Your task to perform on an android device: delete location history Image 0: 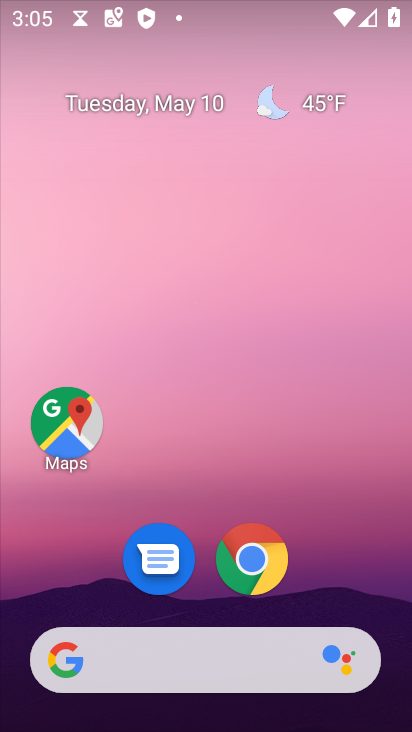
Step 0: drag from (351, 610) to (205, 229)
Your task to perform on an android device: delete location history Image 1: 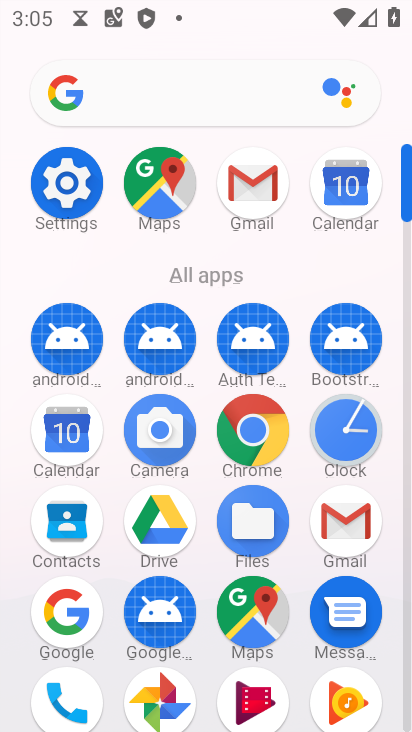
Step 1: drag from (299, 531) to (298, 180)
Your task to perform on an android device: delete location history Image 2: 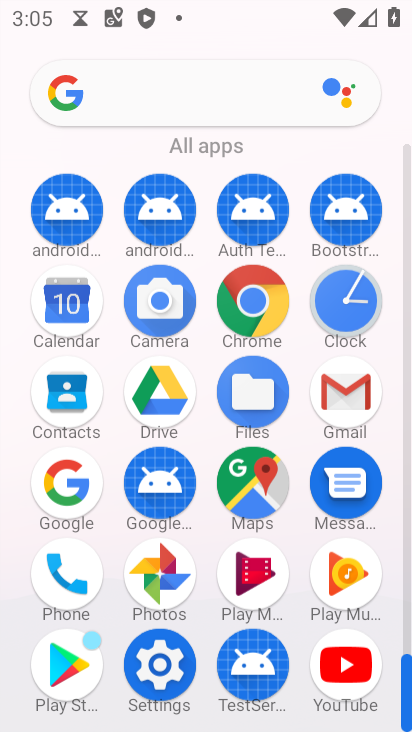
Step 2: drag from (297, 424) to (261, 138)
Your task to perform on an android device: delete location history Image 3: 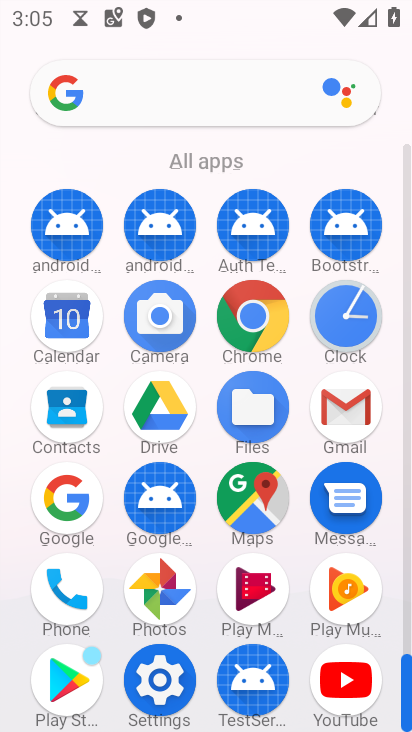
Step 3: click (247, 503)
Your task to perform on an android device: delete location history Image 4: 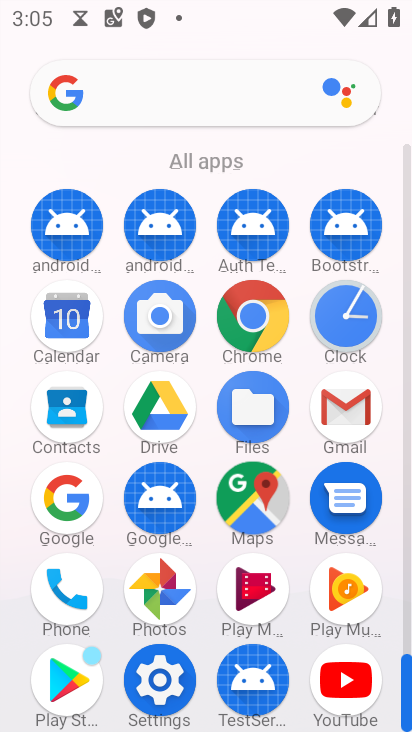
Step 4: click (247, 503)
Your task to perform on an android device: delete location history Image 5: 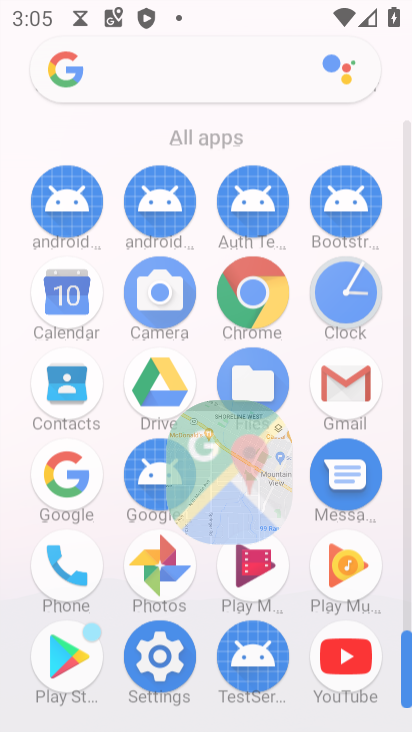
Step 5: click (247, 503)
Your task to perform on an android device: delete location history Image 6: 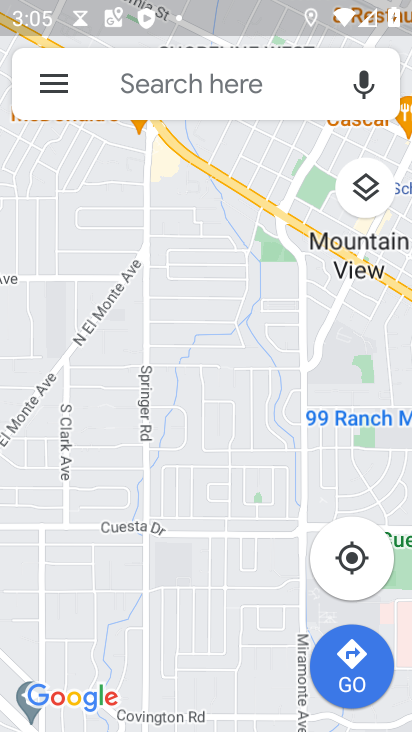
Step 6: drag from (60, 81) to (58, 273)
Your task to perform on an android device: delete location history Image 7: 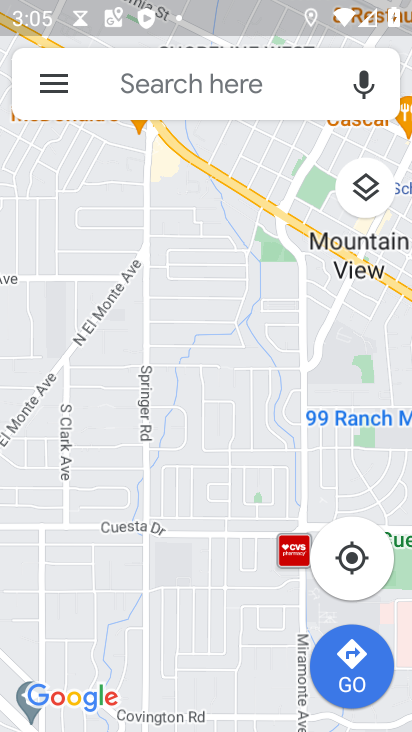
Step 7: click (48, 84)
Your task to perform on an android device: delete location history Image 8: 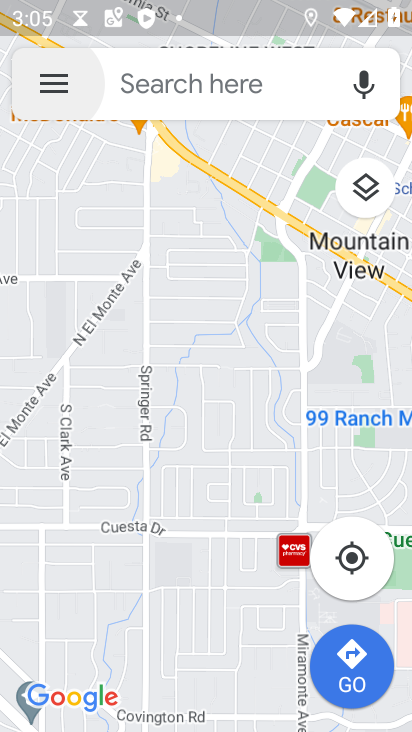
Step 8: click (52, 81)
Your task to perform on an android device: delete location history Image 9: 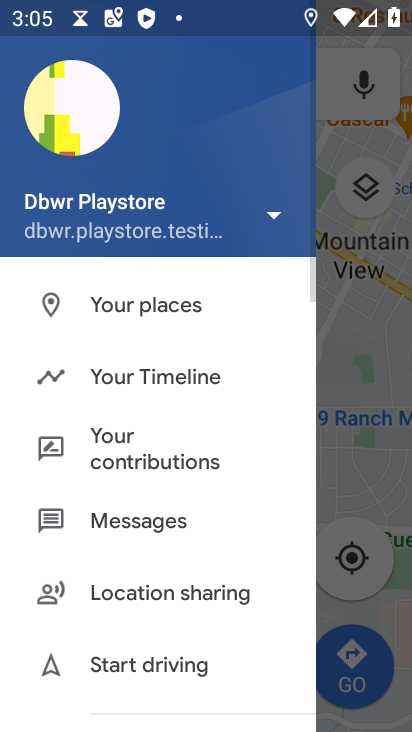
Step 9: click (184, 379)
Your task to perform on an android device: delete location history Image 10: 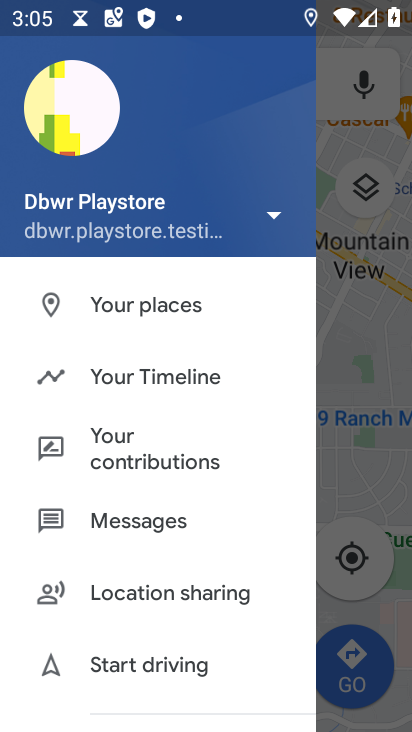
Step 10: click (167, 373)
Your task to perform on an android device: delete location history Image 11: 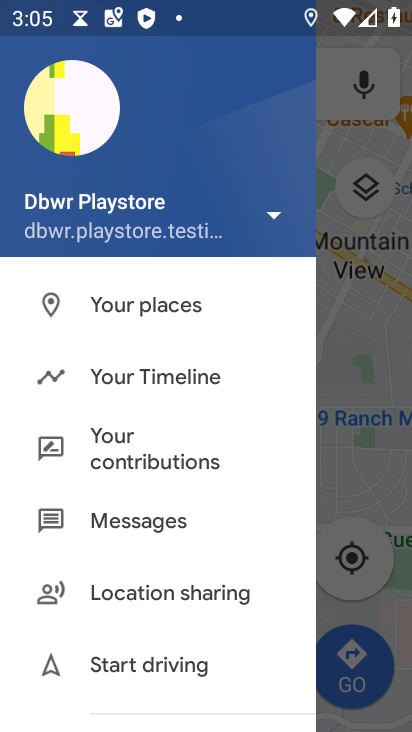
Step 11: click (168, 371)
Your task to perform on an android device: delete location history Image 12: 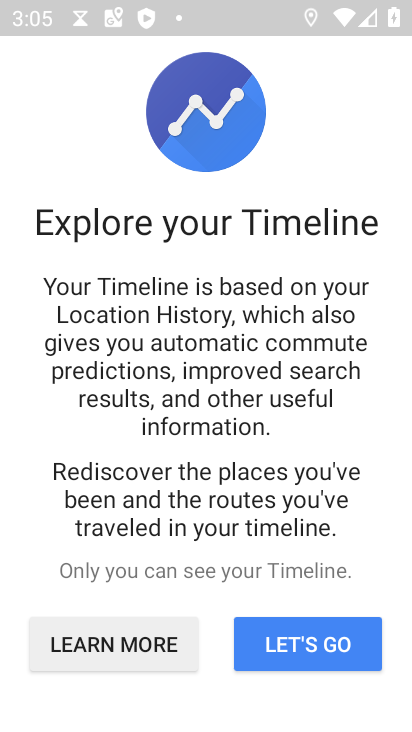
Step 12: click (310, 638)
Your task to perform on an android device: delete location history Image 13: 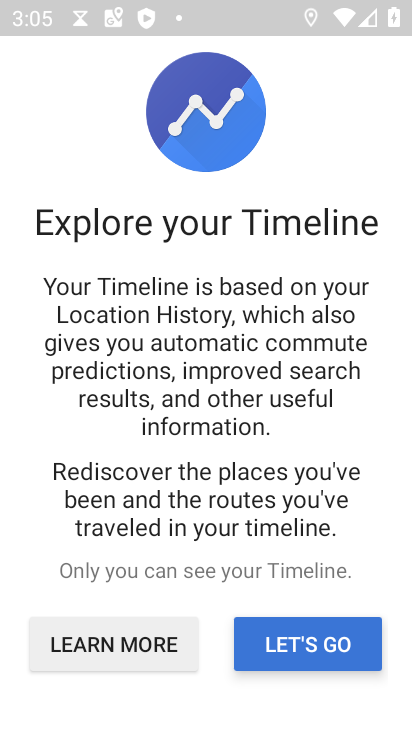
Step 13: click (310, 641)
Your task to perform on an android device: delete location history Image 14: 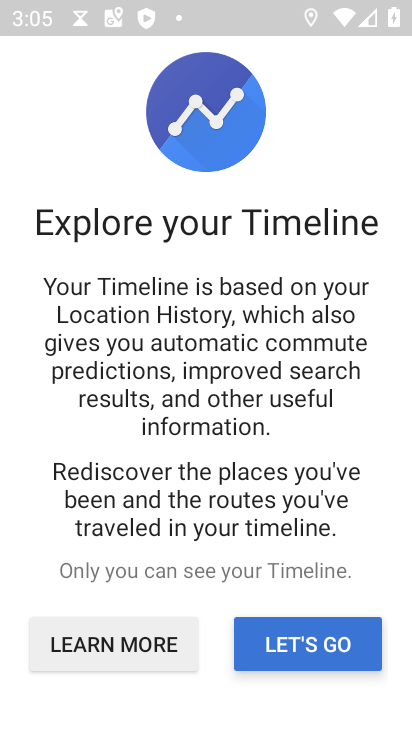
Step 14: click (307, 651)
Your task to perform on an android device: delete location history Image 15: 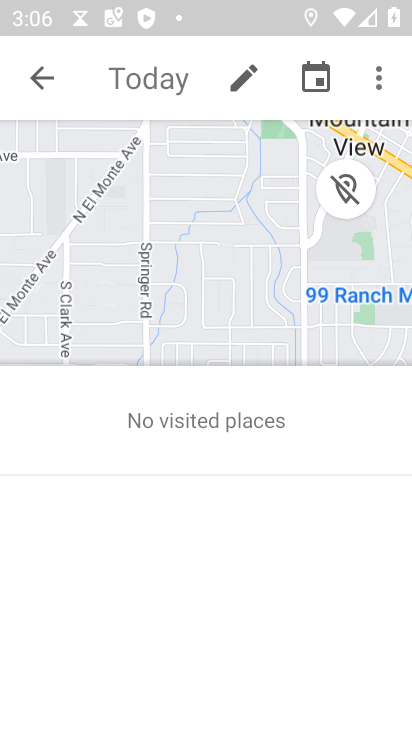
Step 15: click (372, 72)
Your task to perform on an android device: delete location history Image 16: 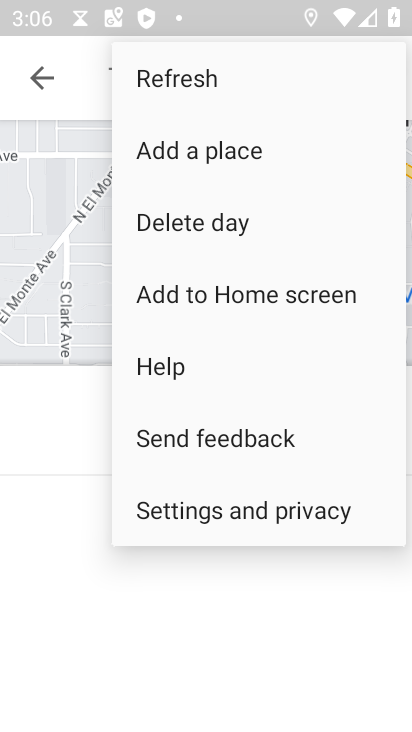
Step 16: click (243, 520)
Your task to perform on an android device: delete location history Image 17: 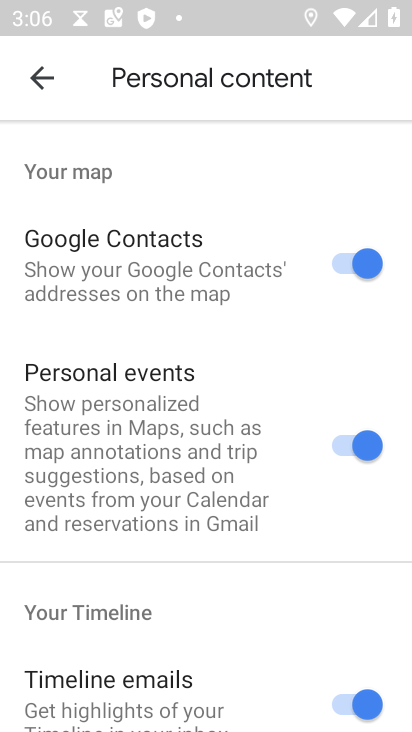
Step 17: drag from (217, 391) to (161, 128)
Your task to perform on an android device: delete location history Image 18: 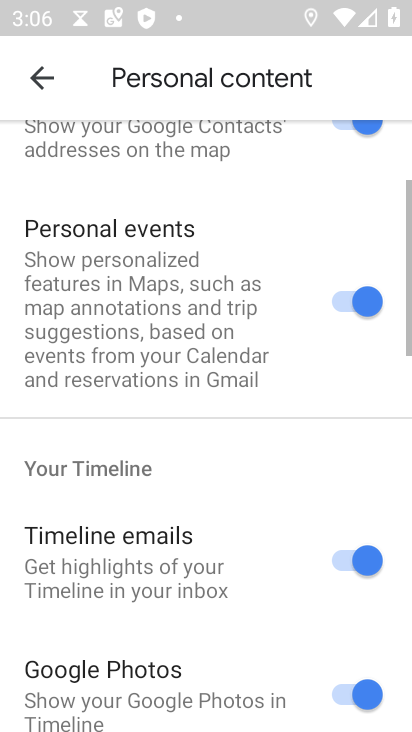
Step 18: drag from (266, 418) to (209, 94)
Your task to perform on an android device: delete location history Image 19: 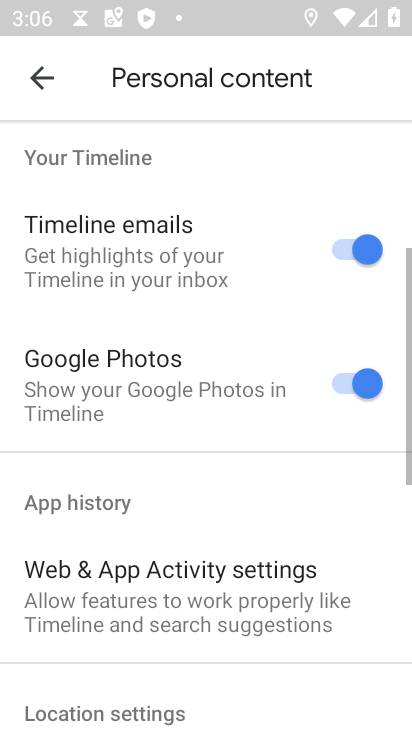
Step 19: drag from (205, 358) to (203, 64)
Your task to perform on an android device: delete location history Image 20: 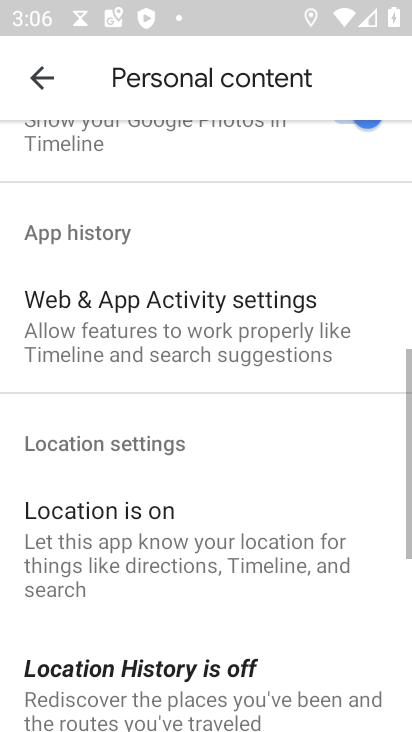
Step 20: drag from (185, 244) to (166, 90)
Your task to perform on an android device: delete location history Image 21: 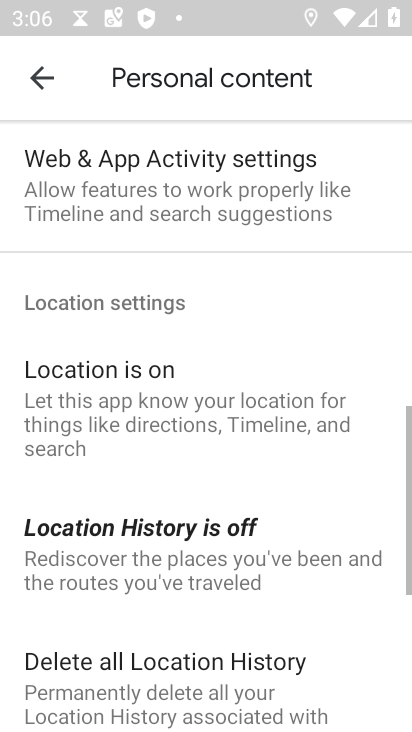
Step 21: drag from (148, 521) to (125, 228)
Your task to perform on an android device: delete location history Image 22: 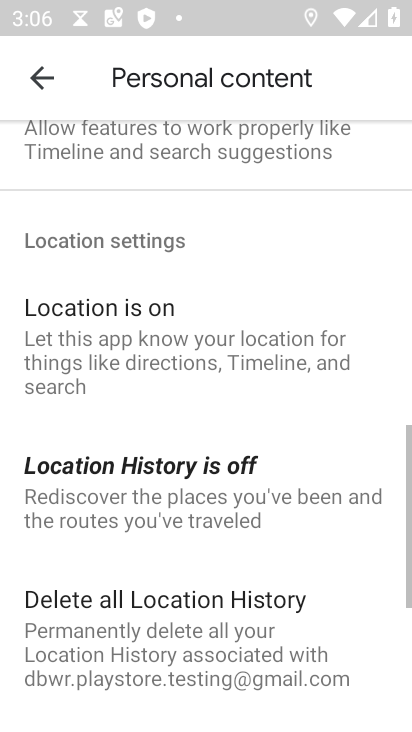
Step 22: drag from (227, 287) to (233, 2)
Your task to perform on an android device: delete location history Image 23: 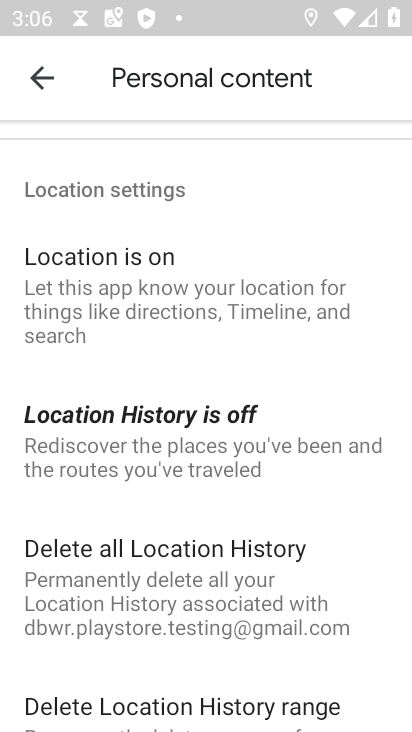
Step 23: click (134, 425)
Your task to perform on an android device: delete location history Image 24: 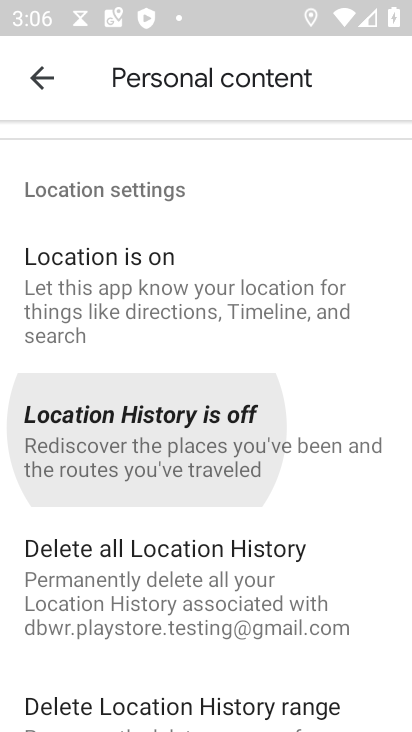
Step 24: click (133, 430)
Your task to perform on an android device: delete location history Image 25: 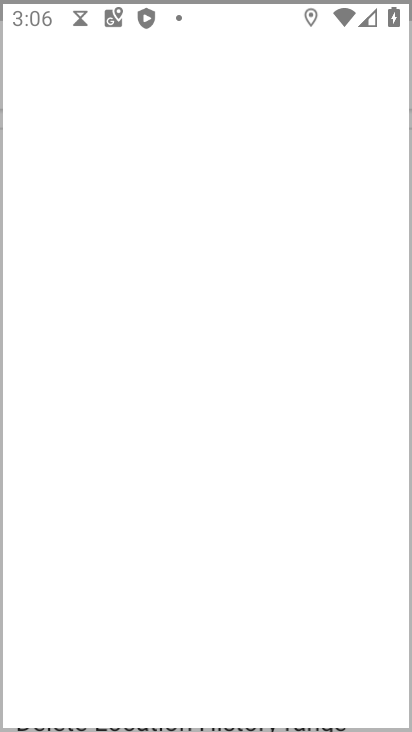
Step 25: click (133, 430)
Your task to perform on an android device: delete location history Image 26: 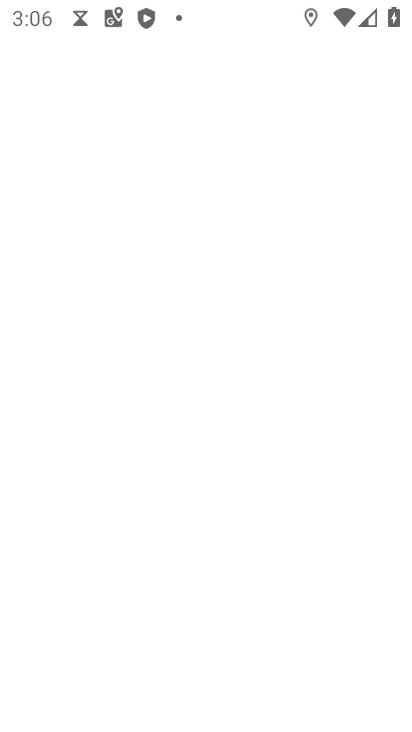
Step 26: click (134, 430)
Your task to perform on an android device: delete location history Image 27: 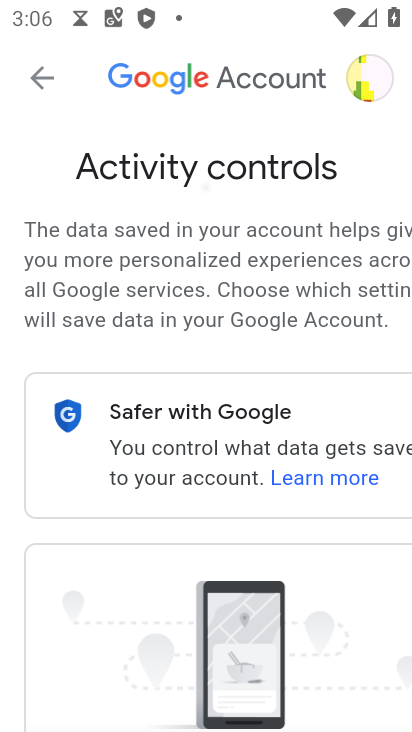
Step 27: click (241, 179)
Your task to perform on an android device: delete location history Image 28: 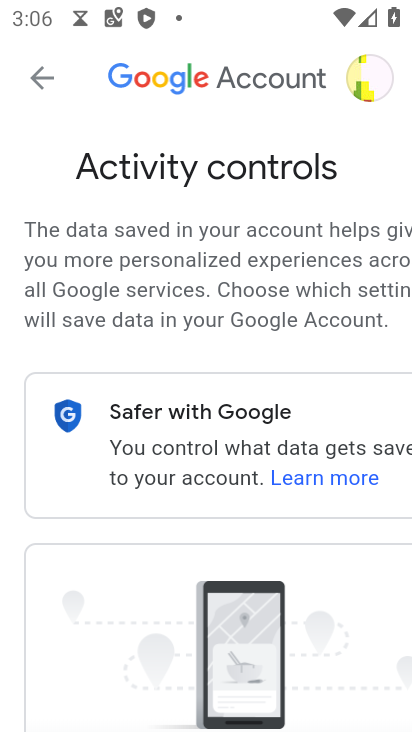
Step 28: drag from (208, 466) to (117, 102)
Your task to perform on an android device: delete location history Image 29: 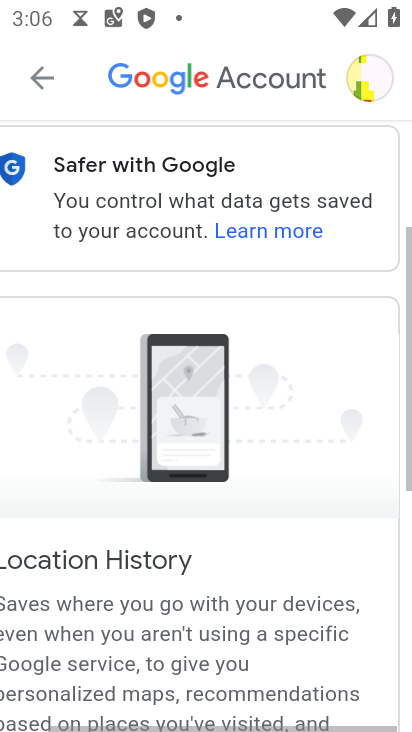
Step 29: drag from (274, 522) to (175, 158)
Your task to perform on an android device: delete location history Image 30: 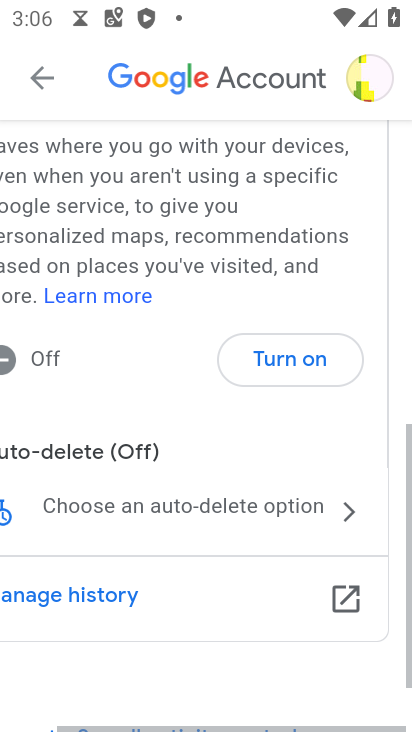
Step 30: drag from (222, 447) to (162, 1)
Your task to perform on an android device: delete location history Image 31: 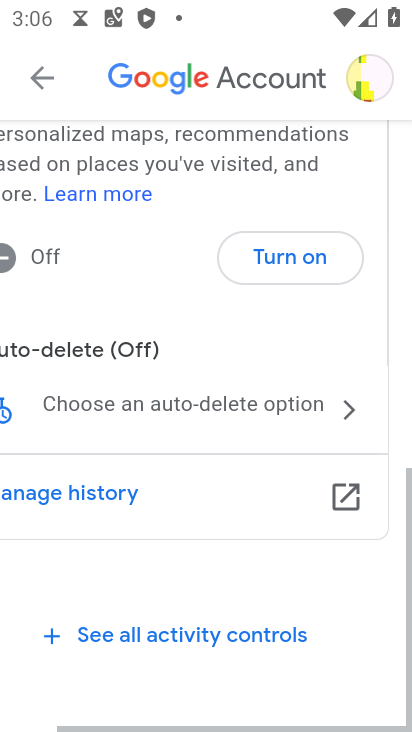
Step 31: drag from (176, 467) to (127, 117)
Your task to perform on an android device: delete location history Image 32: 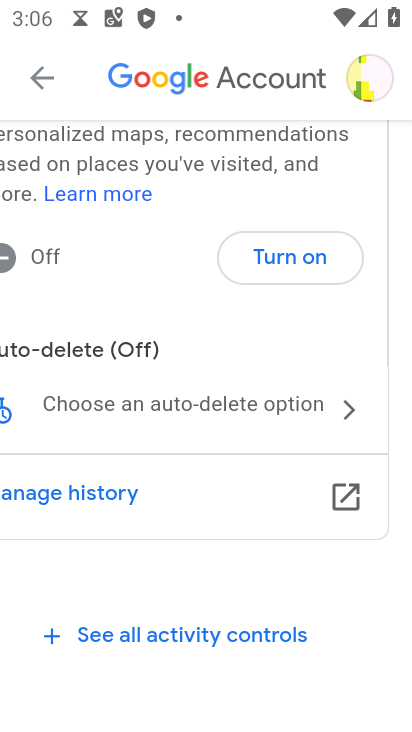
Step 32: drag from (182, 506) to (0, 217)
Your task to perform on an android device: delete location history Image 33: 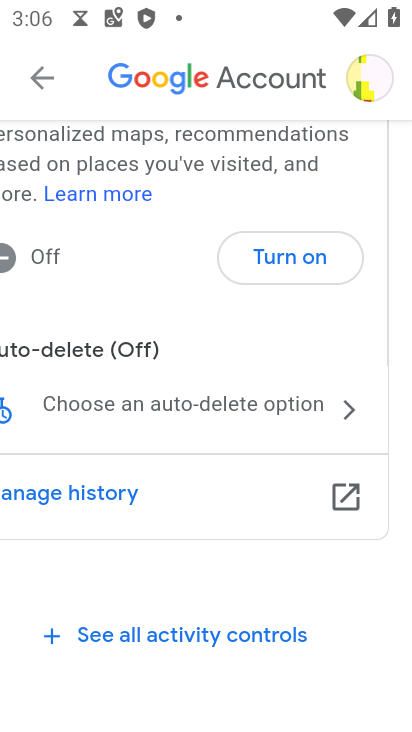
Step 33: click (74, 348)
Your task to perform on an android device: delete location history Image 34: 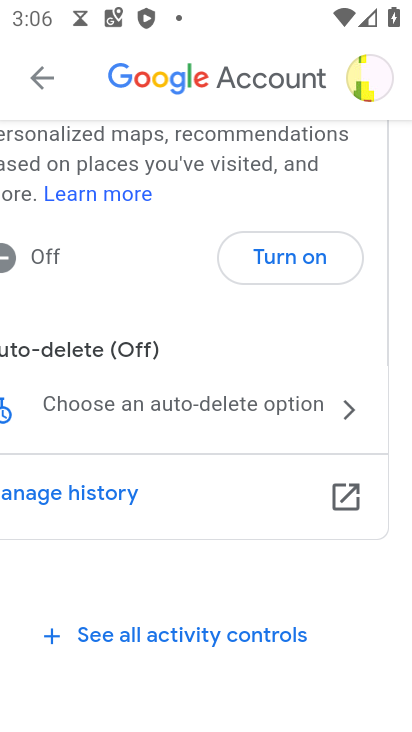
Step 34: click (74, 348)
Your task to perform on an android device: delete location history Image 35: 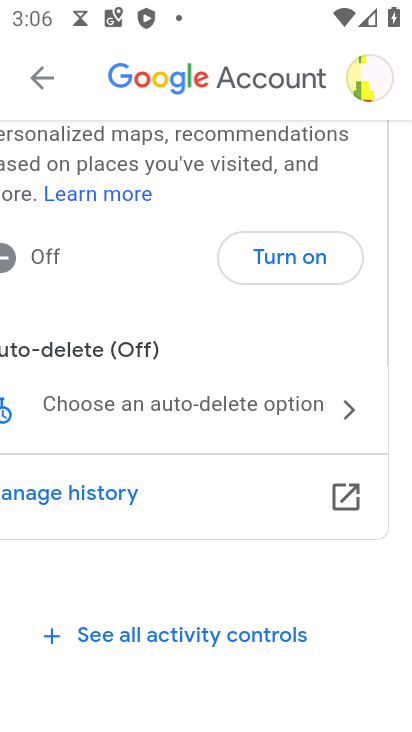
Step 35: click (58, 338)
Your task to perform on an android device: delete location history Image 36: 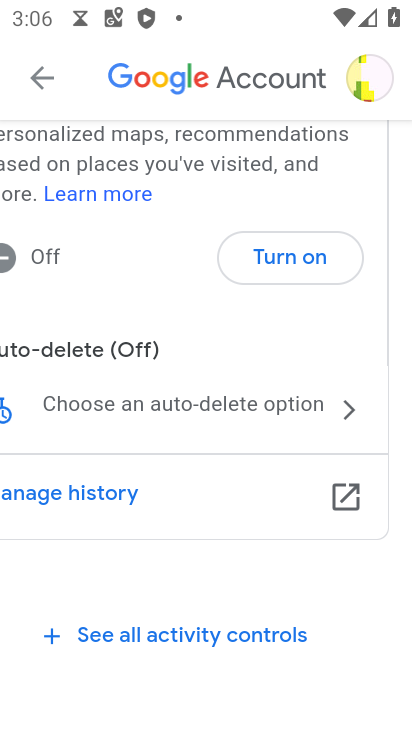
Step 36: click (57, 363)
Your task to perform on an android device: delete location history Image 37: 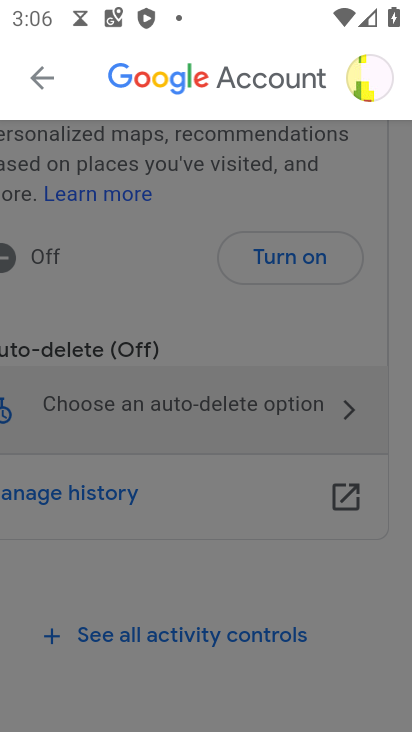
Step 37: drag from (153, 519) to (14, 141)
Your task to perform on an android device: delete location history Image 38: 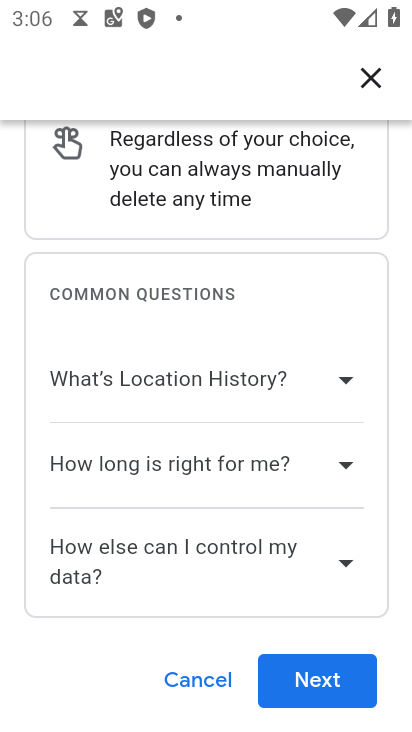
Step 38: press back button
Your task to perform on an android device: delete location history Image 39: 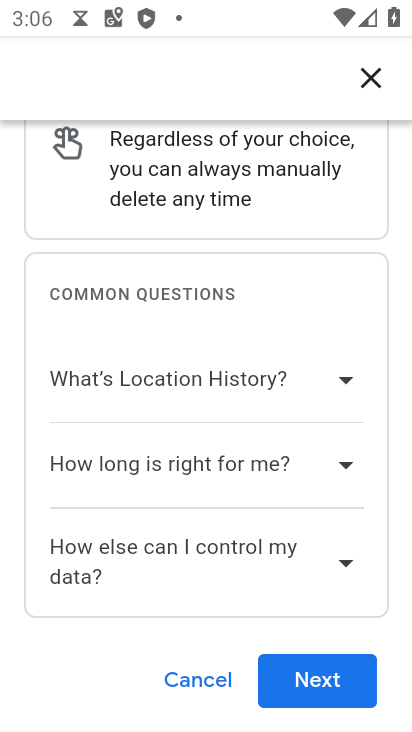
Step 39: press back button
Your task to perform on an android device: delete location history Image 40: 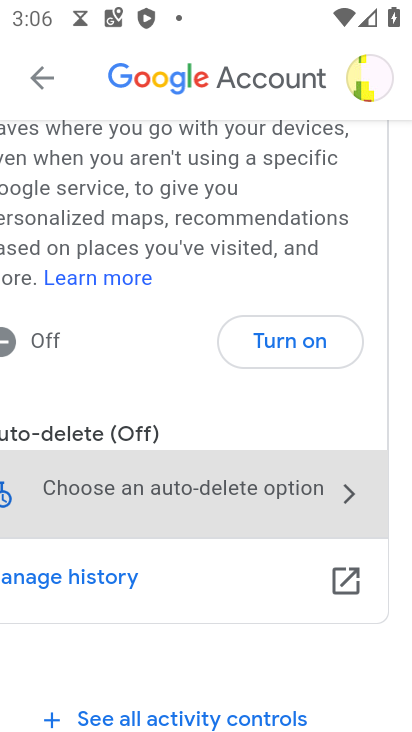
Step 40: press back button
Your task to perform on an android device: delete location history Image 41: 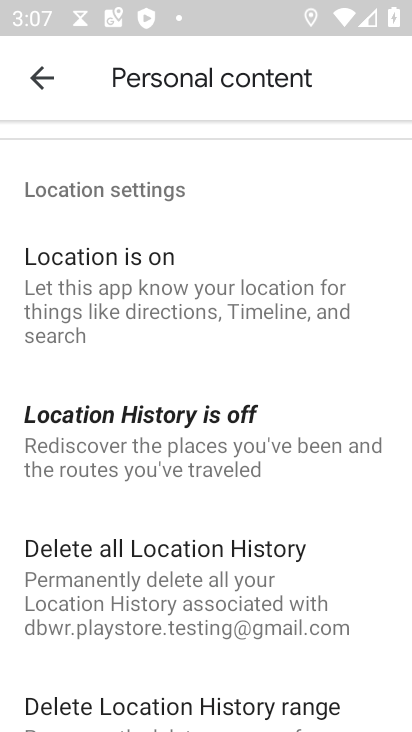
Step 41: click (116, 554)
Your task to perform on an android device: delete location history Image 42: 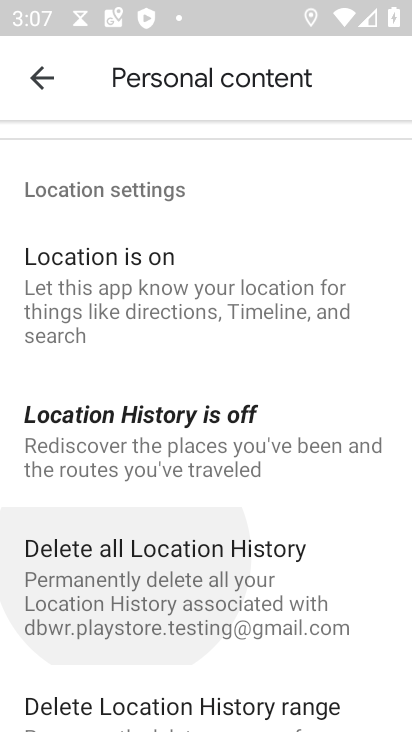
Step 42: click (117, 555)
Your task to perform on an android device: delete location history Image 43: 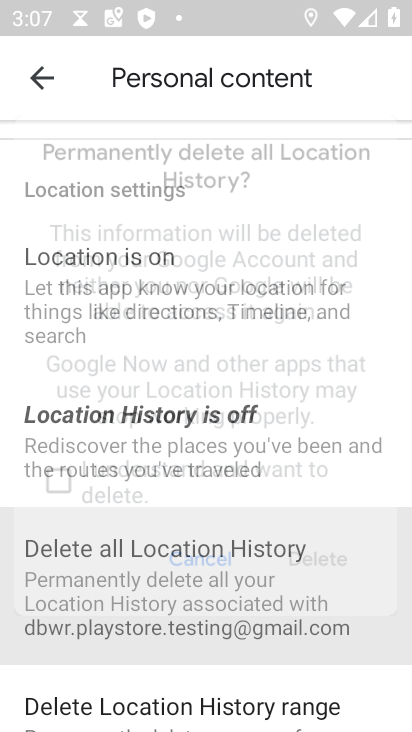
Step 43: click (125, 561)
Your task to perform on an android device: delete location history Image 44: 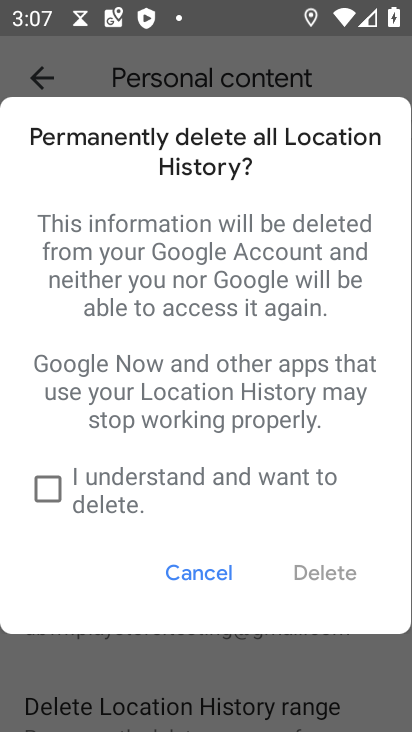
Step 44: click (48, 479)
Your task to perform on an android device: delete location history Image 45: 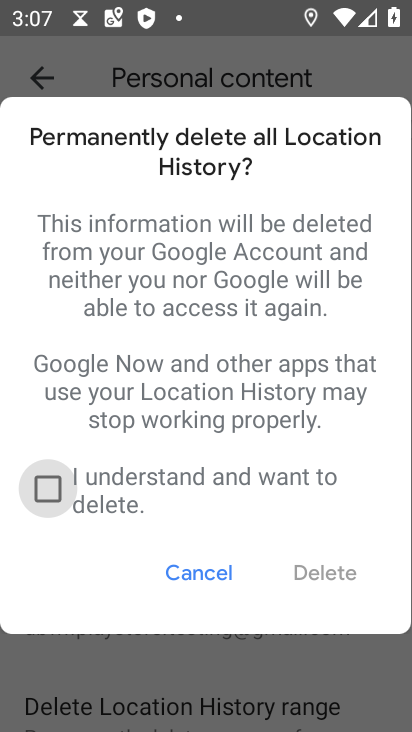
Step 45: click (54, 478)
Your task to perform on an android device: delete location history Image 46: 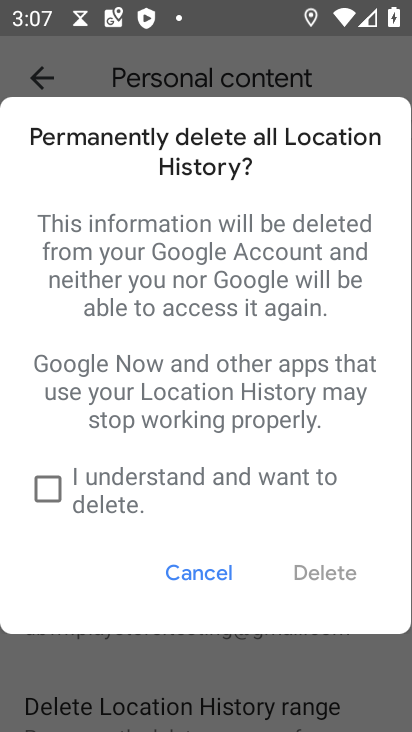
Step 46: click (46, 487)
Your task to perform on an android device: delete location history Image 47: 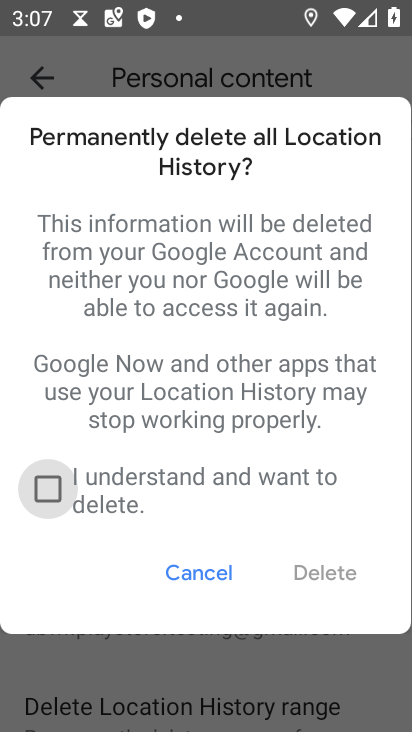
Step 47: click (44, 492)
Your task to perform on an android device: delete location history Image 48: 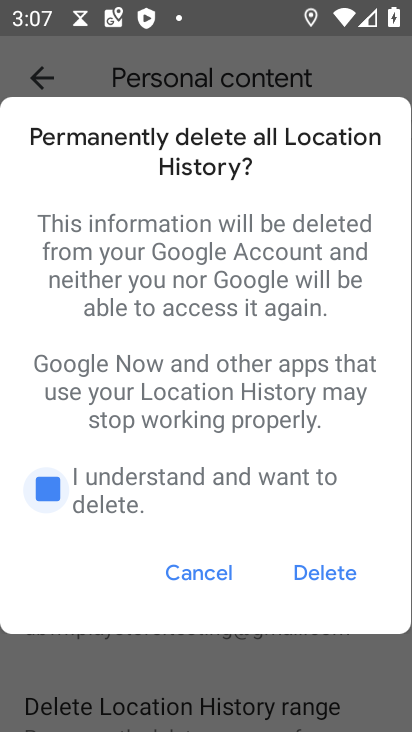
Step 48: click (44, 493)
Your task to perform on an android device: delete location history Image 49: 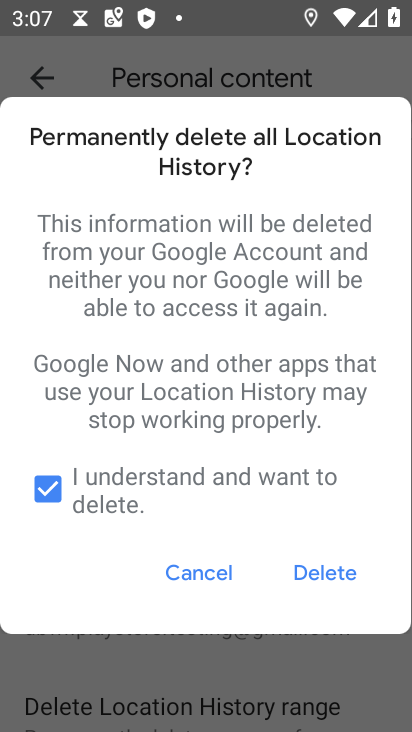
Step 49: click (328, 572)
Your task to perform on an android device: delete location history Image 50: 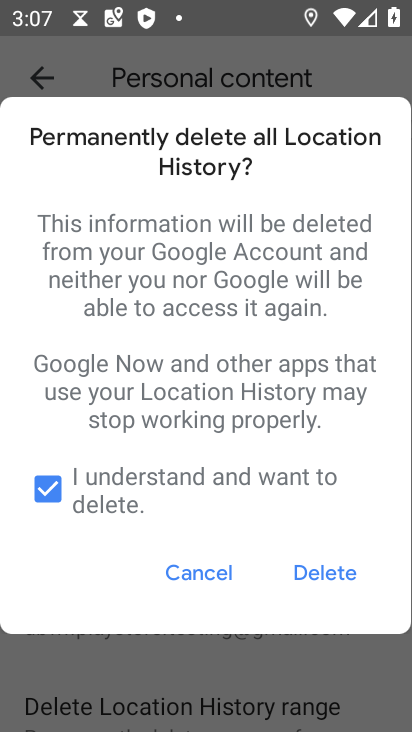
Step 50: click (327, 577)
Your task to perform on an android device: delete location history Image 51: 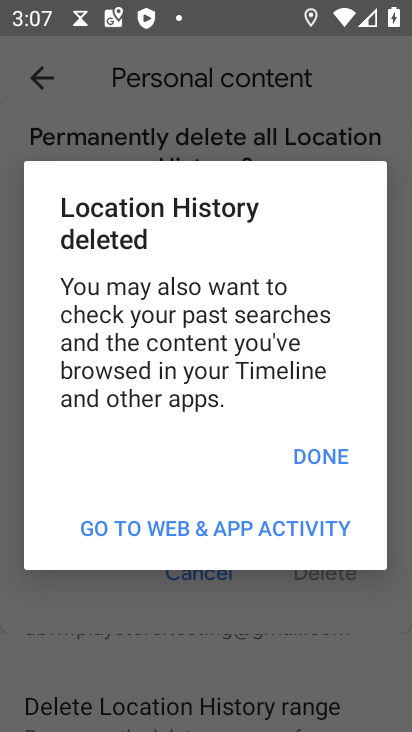
Step 51: click (320, 458)
Your task to perform on an android device: delete location history Image 52: 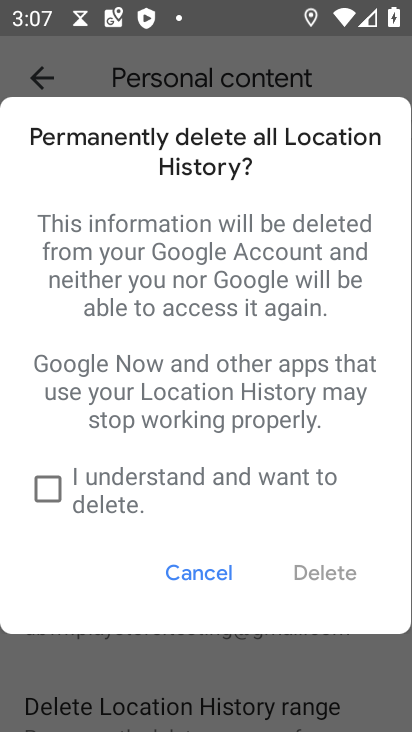
Step 52: click (43, 483)
Your task to perform on an android device: delete location history Image 53: 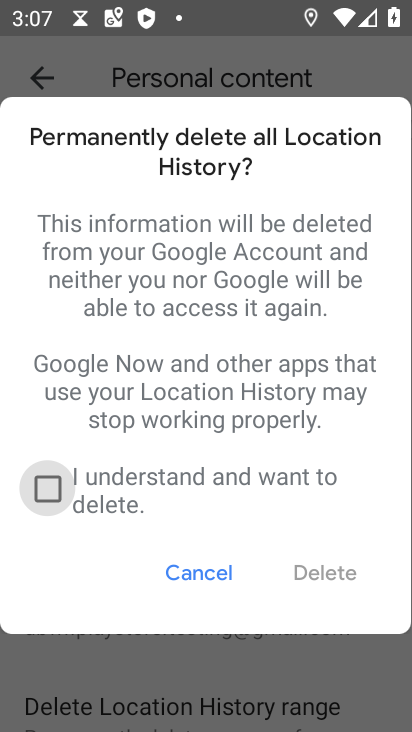
Step 53: click (45, 482)
Your task to perform on an android device: delete location history Image 54: 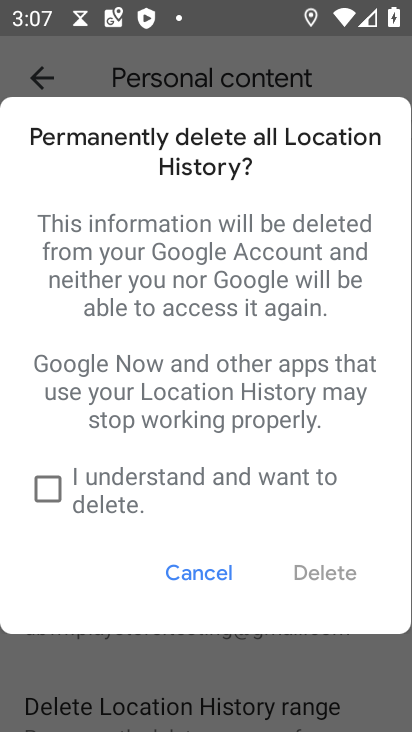
Step 54: click (45, 484)
Your task to perform on an android device: delete location history Image 55: 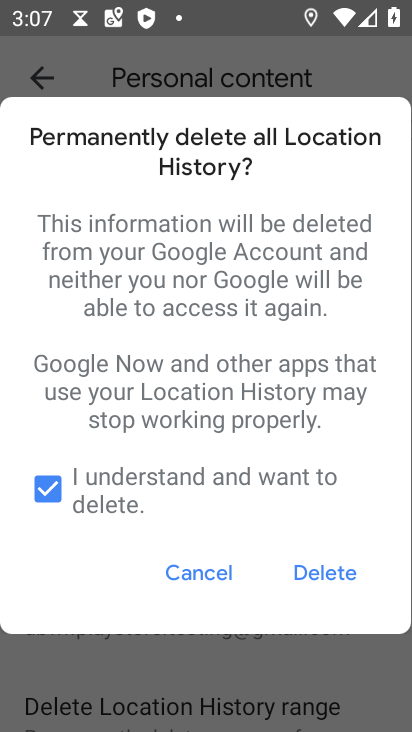
Step 55: click (331, 566)
Your task to perform on an android device: delete location history Image 56: 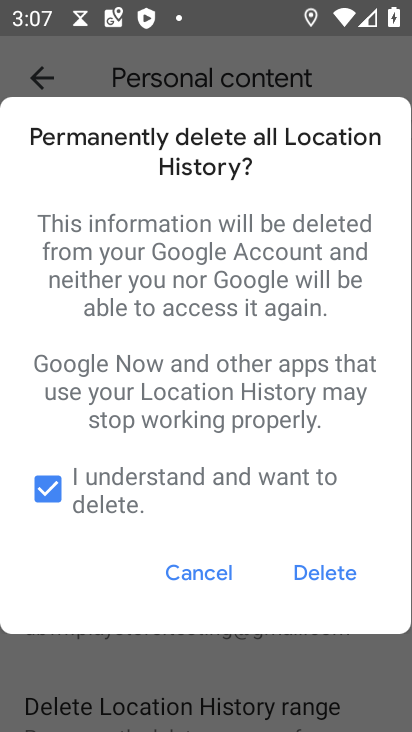
Step 56: click (331, 566)
Your task to perform on an android device: delete location history Image 57: 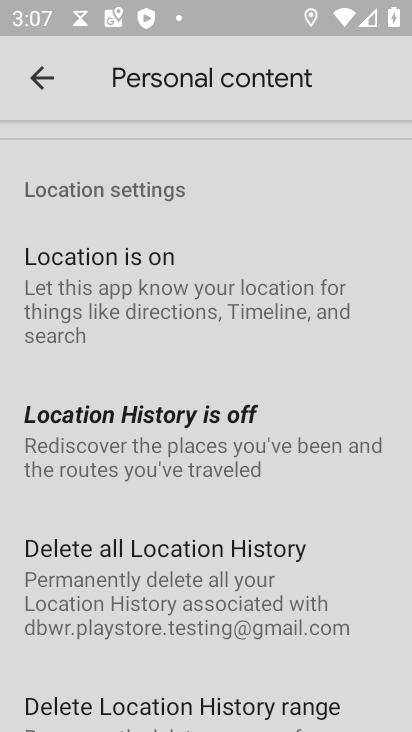
Step 57: click (329, 565)
Your task to perform on an android device: delete location history Image 58: 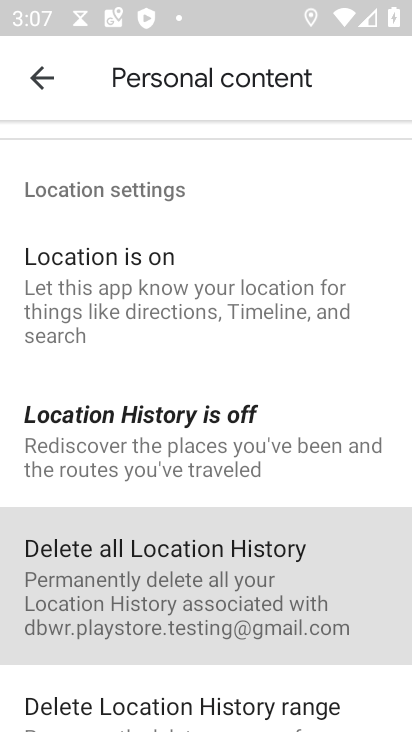
Step 58: click (329, 565)
Your task to perform on an android device: delete location history Image 59: 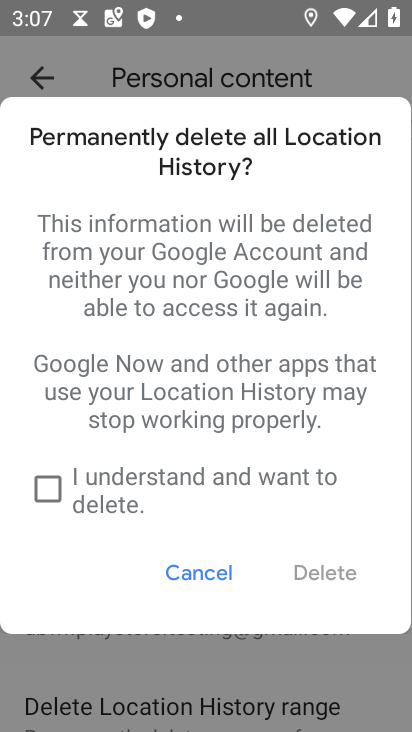
Step 59: click (329, 565)
Your task to perform on an android device: delete location history Image 60: 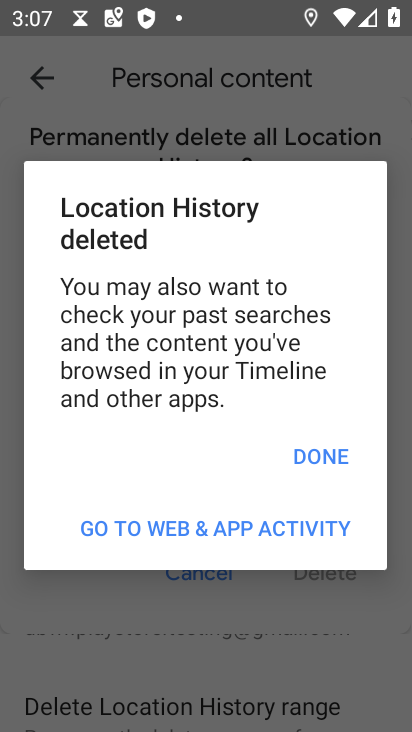
Step 60: click (324, 453)
Your task to perform on an android device: delete location history Image 61: 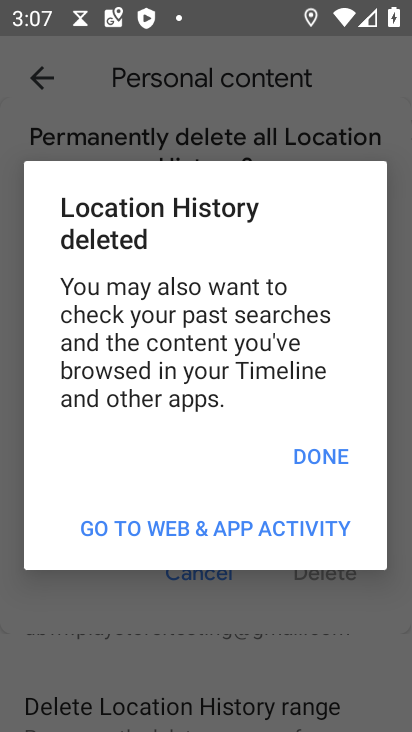
Step 61: click (314, 455)
Your task to perform on an android device: delete location history Image 62: 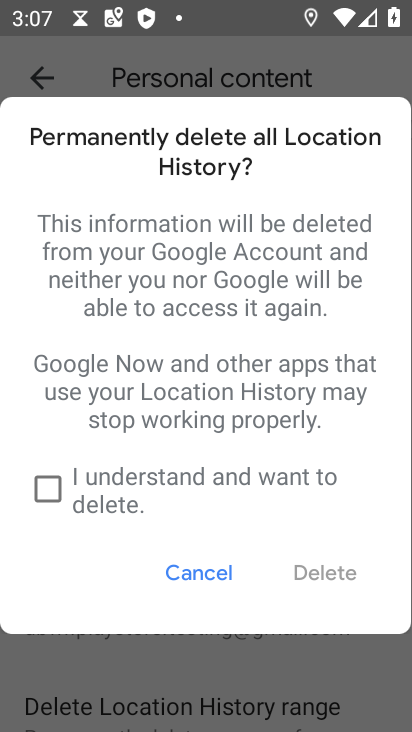
Step 62: click (57, 490)
Your task to perform on an android device: delete location history Image 63: 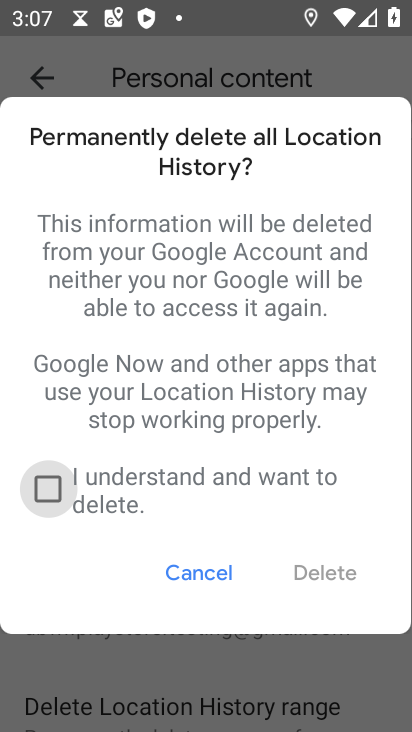
Step 63: click (56, 489)
Your task to perform on an android device: delete location history Image 64: 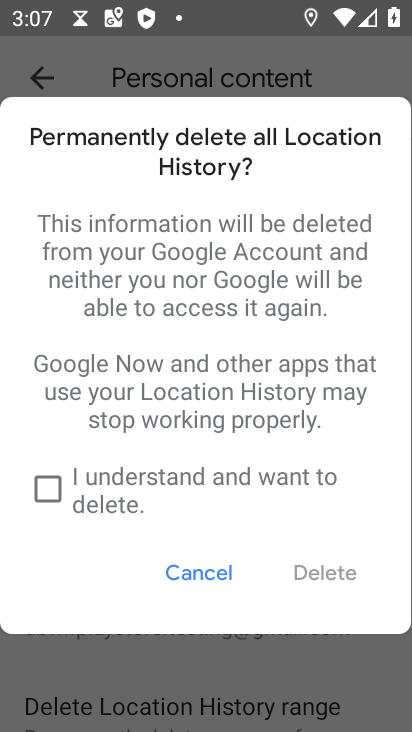
Step 64: click (54, 482)
Your task to perform on an android device: delete location history Image 65: 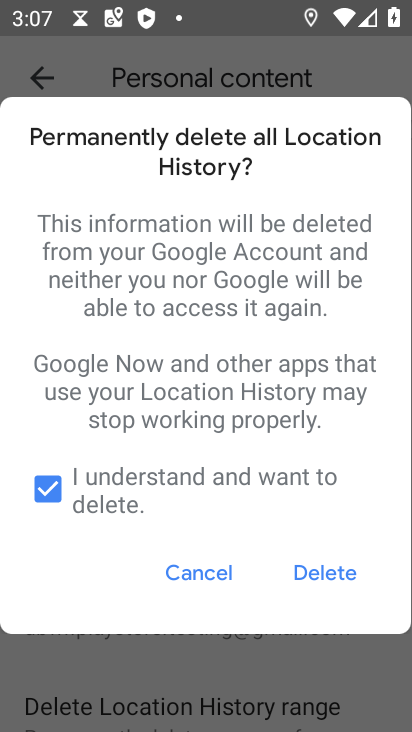
Step 65: click (331, 561)
Your task to perform on an android device: delete location history Image 66: 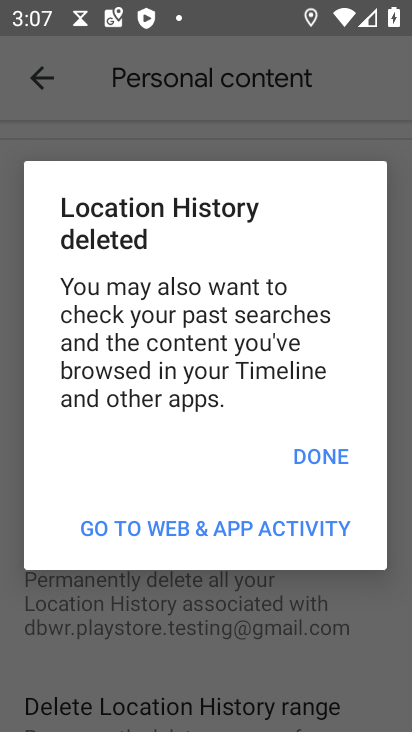
Step 66: task complete